Your task to perform on an android device: Toggle the flashlight Image 0: 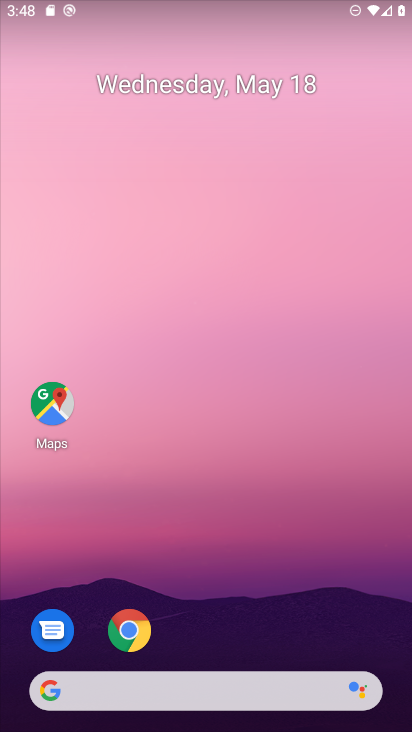
Step 0: drag from (215, 627) to (241, 42)
Your task to perform on an android device: Toggle the flashlight Image 1: 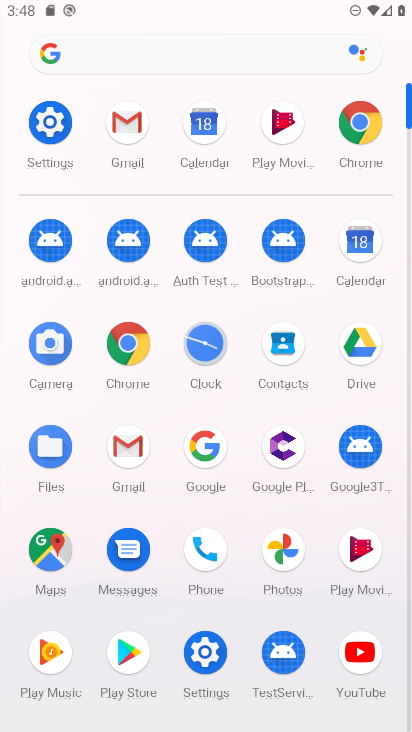
Step 1: click (60, 111)
Your task to perform on an android device: Toggle the flashlight Image 2: 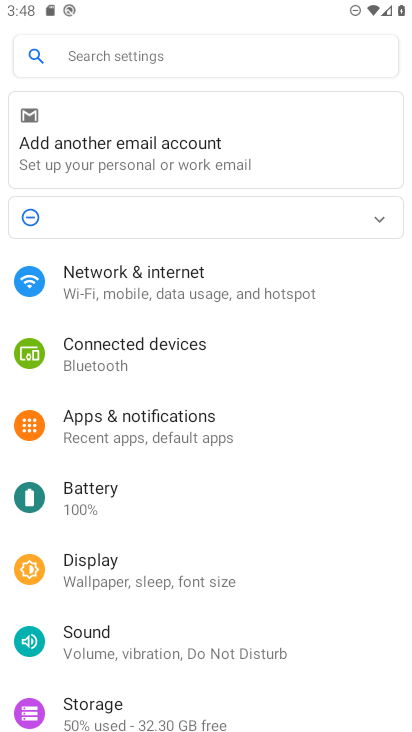
Step 2: click (130, 48)
Your task to perform on an android device: Toggle the flashlight Image 3: 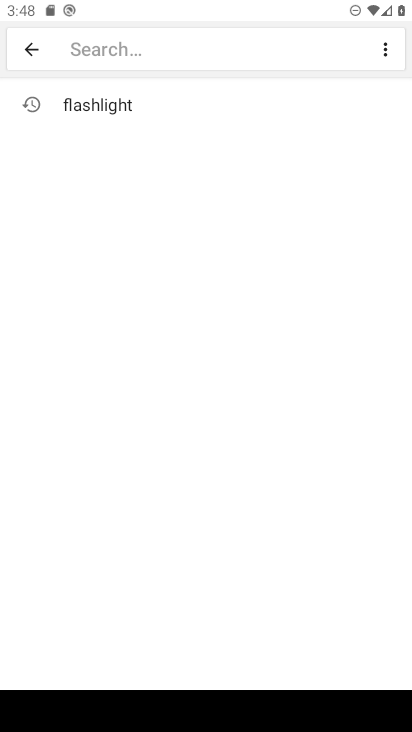
Step 3: click (141, 103)
Your task to perform on an android device: Toggle the flashlight Image 4: 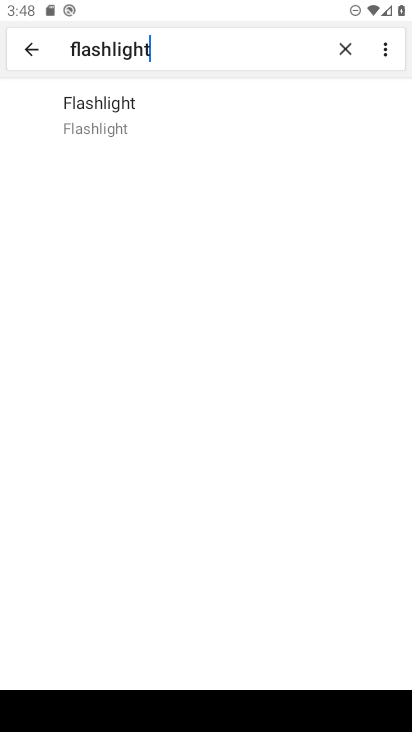
Step 4: click (158, 111)
Your task to perform on an android device: Toggle the flashlight Image 5: 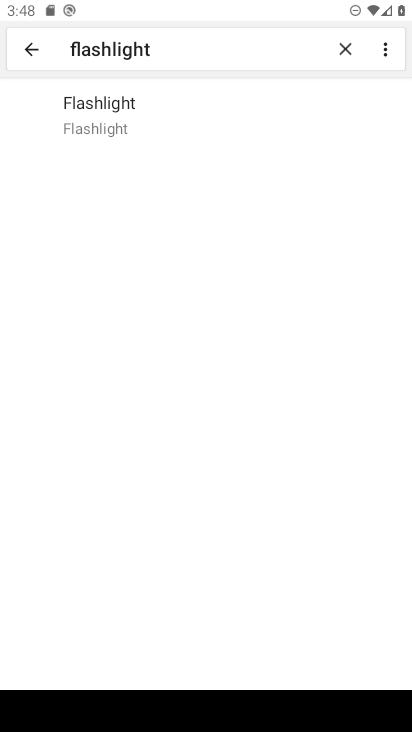
Step 5: task complete